Your task to perform on an android device: When is my next appointment? Image 0: 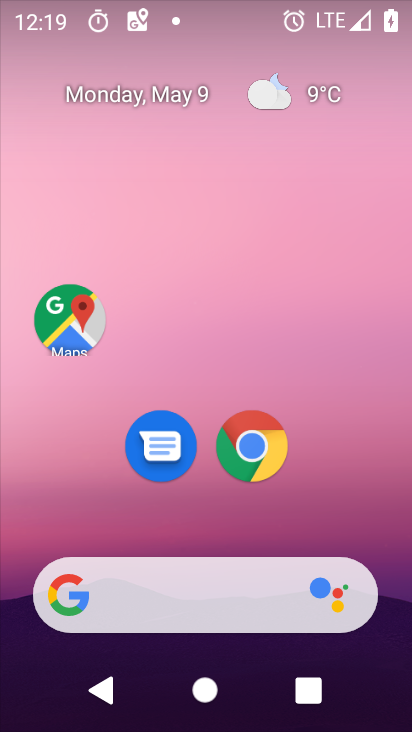
Step 0: press home button
Your task to perform on an android device: When is my next appointment? Image 1: 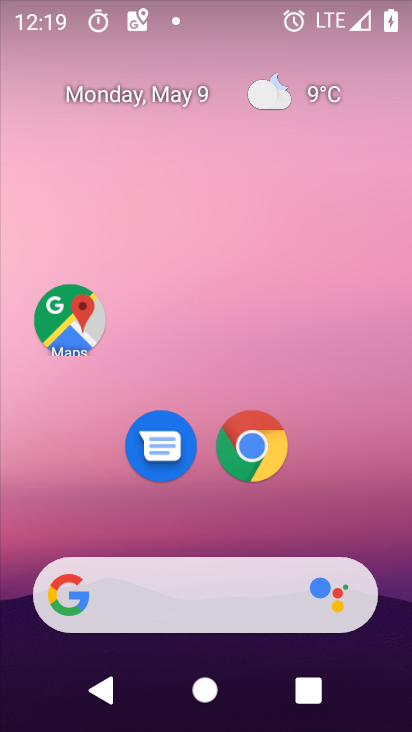
Step 1: drag from (379, 140) to (365, 20)
Your task to perform on an android device: When is my next appointment? Image 2: 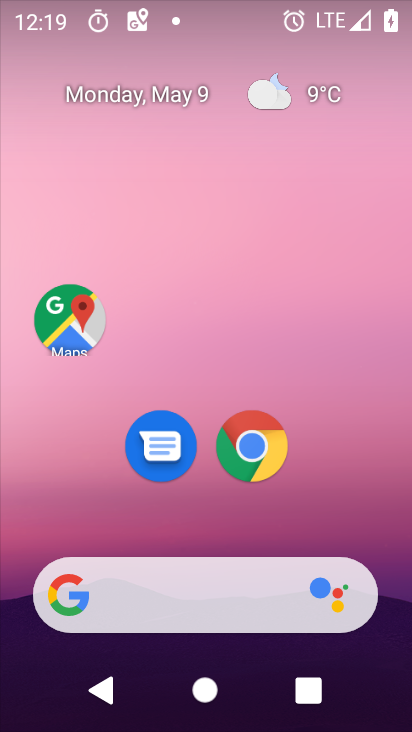
Step 2: drag from (367, 549) to (382, 3)
Your task to perform on an android device: When is my next appointment? Image 3: 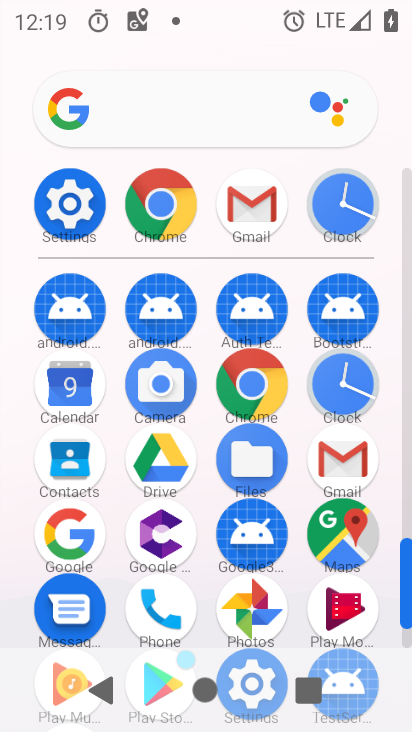
Step 3: click (72, 394)
Your task to perform on an android device: When is my next appointment? Image 4: 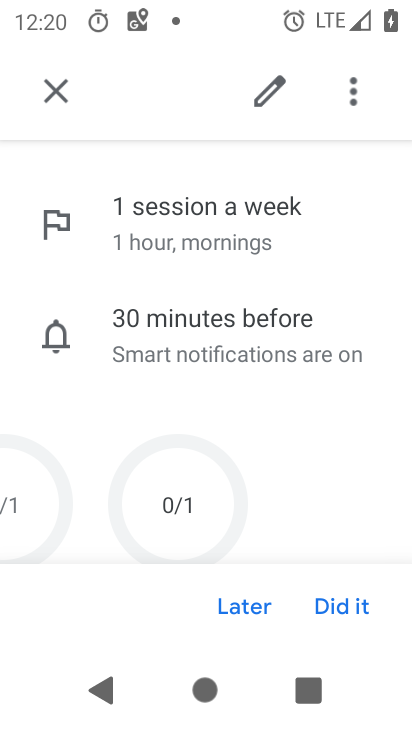
Step 4: click (57, 98)
Your task to perform on an android device: When is my next appointment? Image 5: 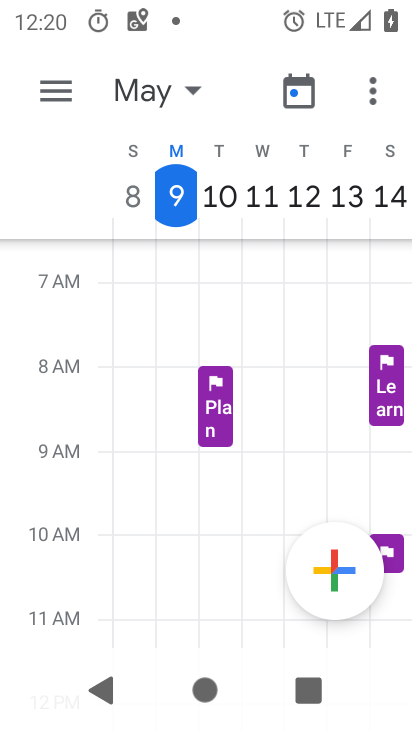
Step 5: click (57, 98)
Your task to perform on an android device: When is my next appointment? Image 6: 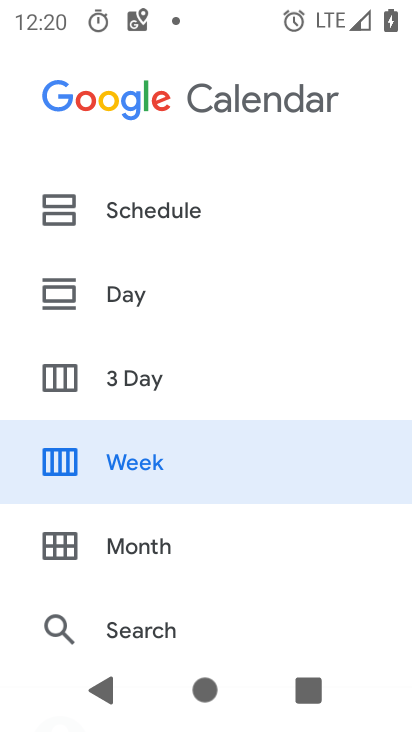
Step 6: click (58, 217)
Your task to perform on an android device: When is my next appointment? Image 7: 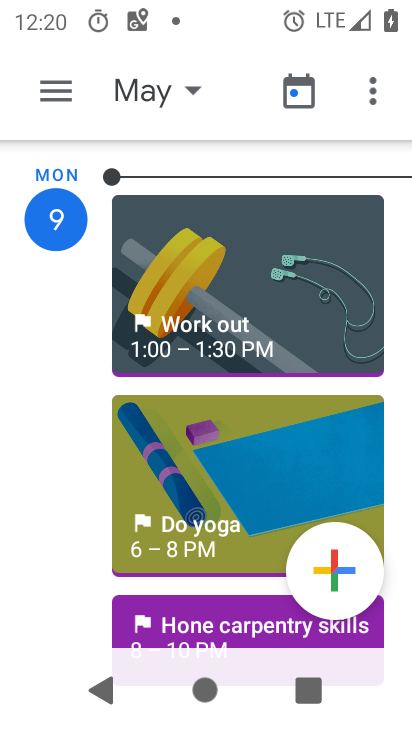
Step 7: drag from (161, 496) to (162, 321)
Your task to perform on an android device: When is my next appointment? Image 8: 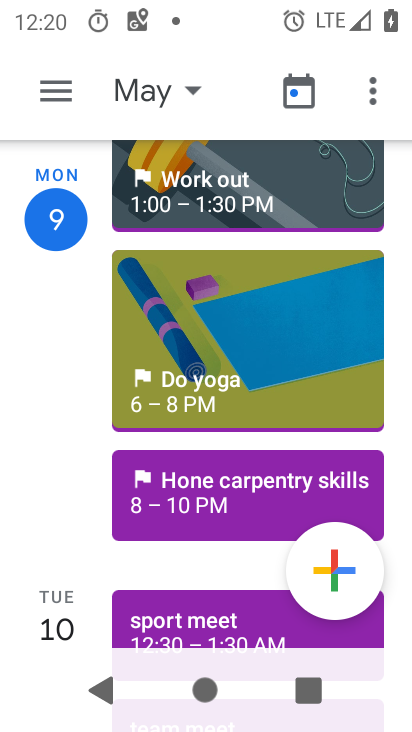
Step 8: click (168, 512)
Your task to perform on an android device: When is my next appointment? Image 9: 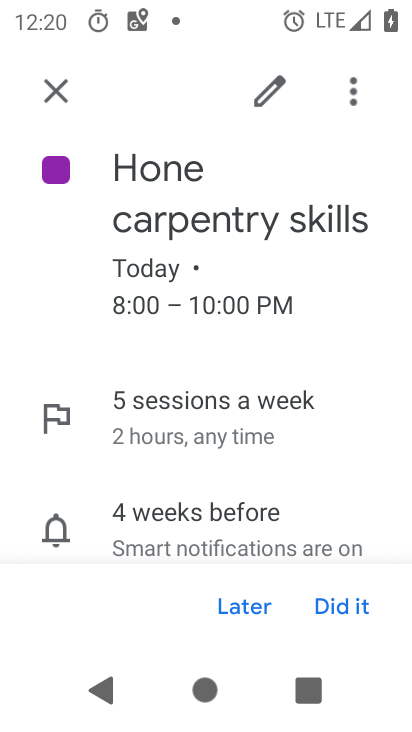
Step 9: task complete